Your task to perform on an android device: Check the news Image 0: 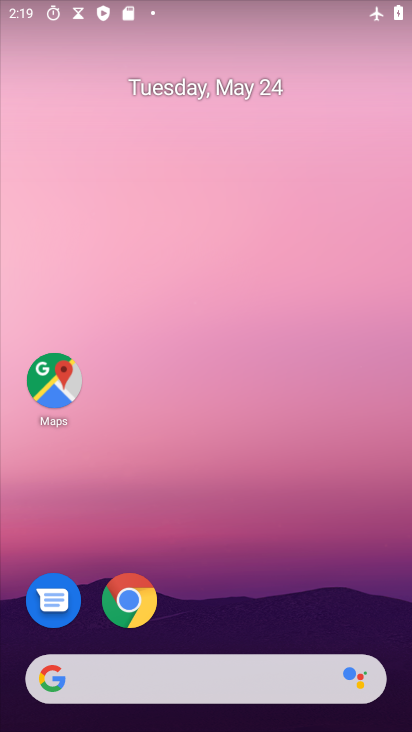
Step 0: drag from (299, 605) to (187, 25)
Your task to perform on an android device: Check the news Image 1: 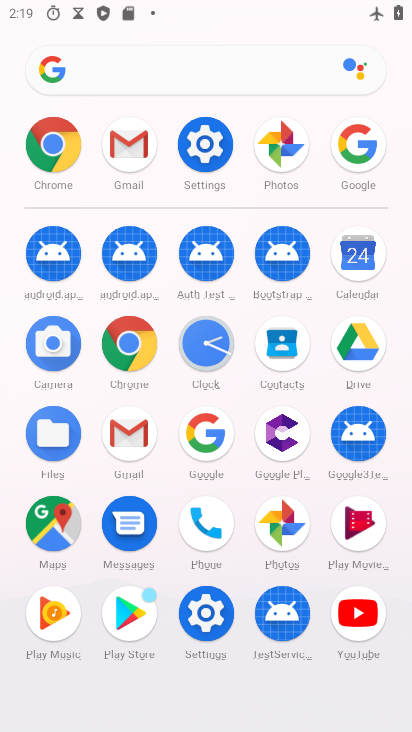
Step 1: click (200, 429)
Your task to perform on an android device: Check the news Image 2: 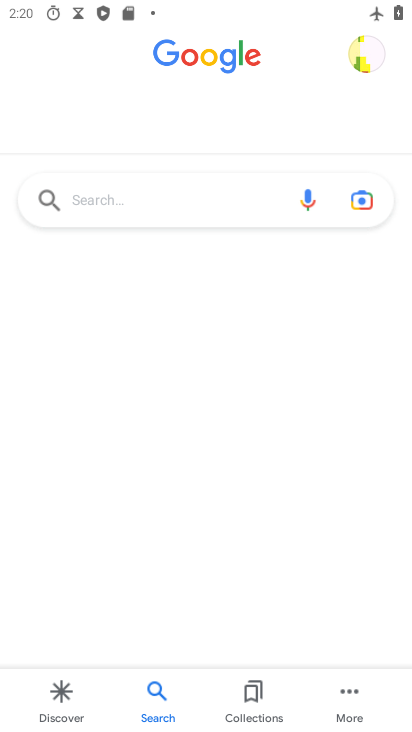
Step 2: click (155, 191)
Your task to perform on an android device: Check the news Image 3: 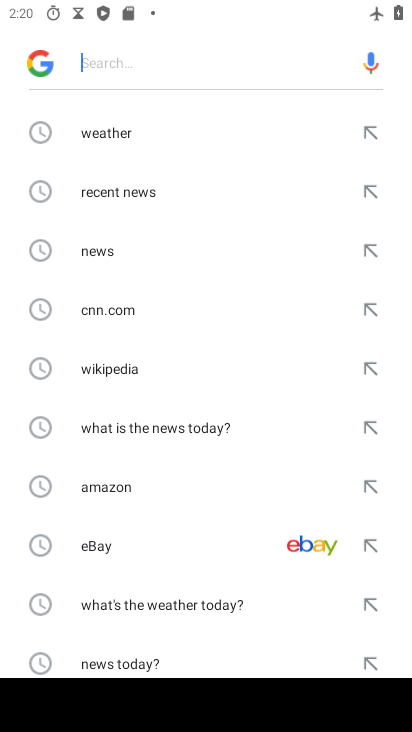
Step 3: click (138, 247)
Your task to perform on an android device: Check the news Image 4: 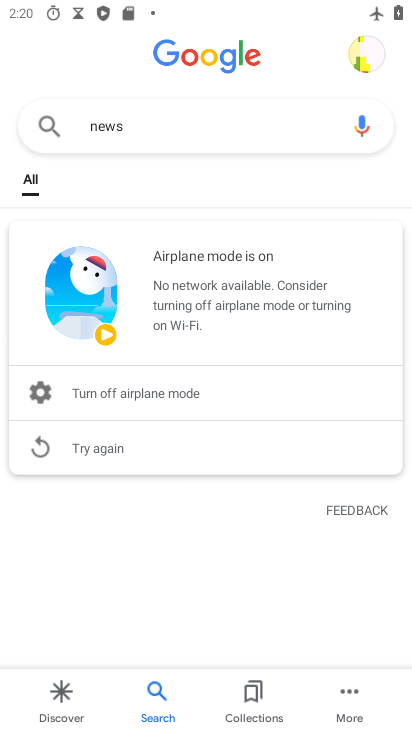
Step 4: task complete